Your task to perform on an android device: change alarm snooze length Image 0: 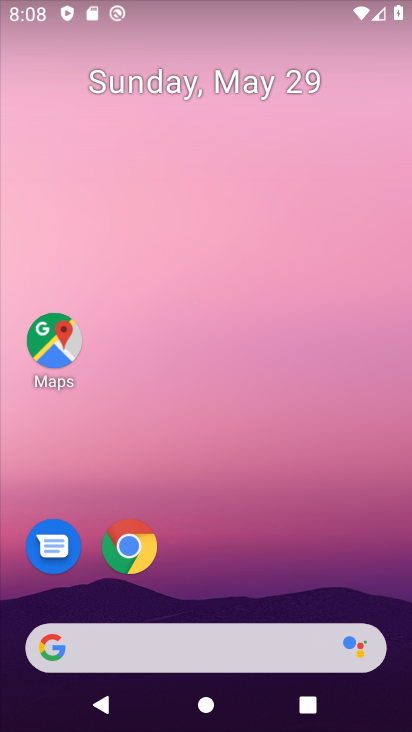
Step 0: drag from (164, 601) to (329, 122)
Your task to perform on an android device: change alarm snooze length Image 1: 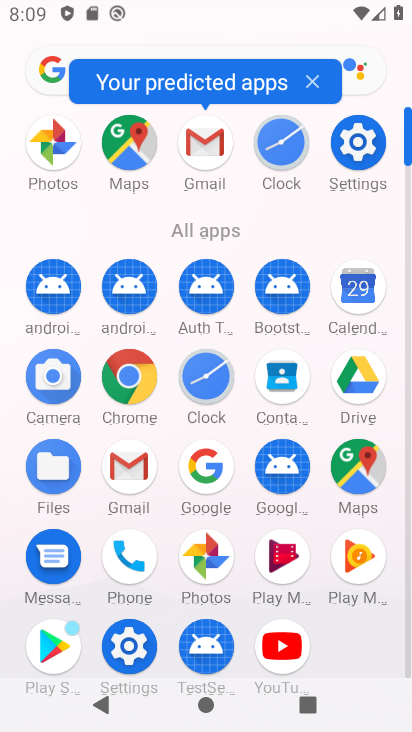
Step 1: click (214, 379)
Your task to perform on an android device: change alarm snooze length Image 2: 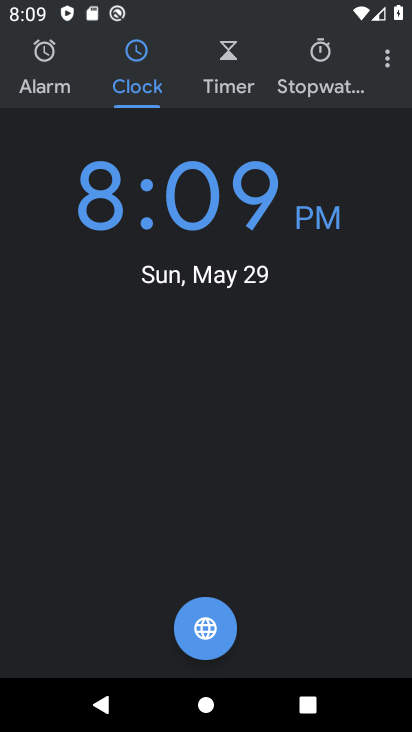
Step 2: click (386, 54)
Your task to perform on an android device: change alarm snooze length Image 3: 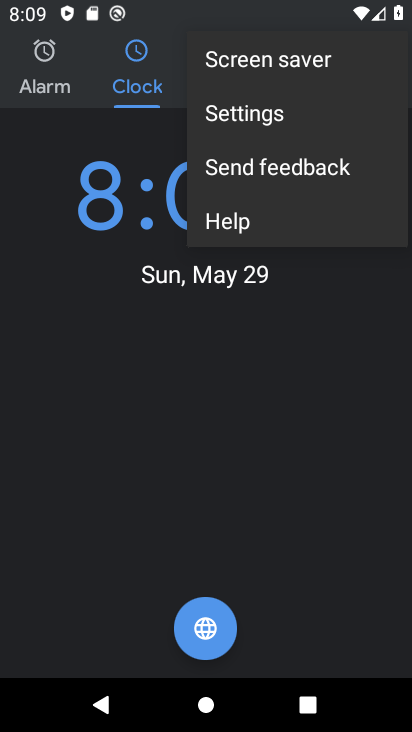
Step 3: click (274, 111)
Your task to perform on an android device: change alarm snooze length Image 4: 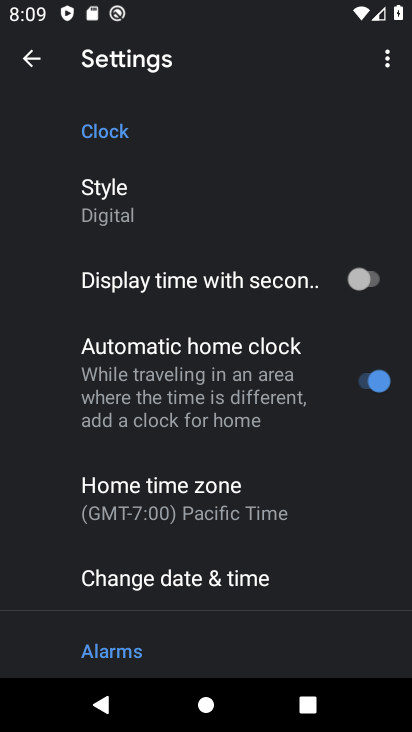
Step 4: drag from (250, 619) to (379, 68)
Your task to perform on an android device: change alarm snooze length Image 5: 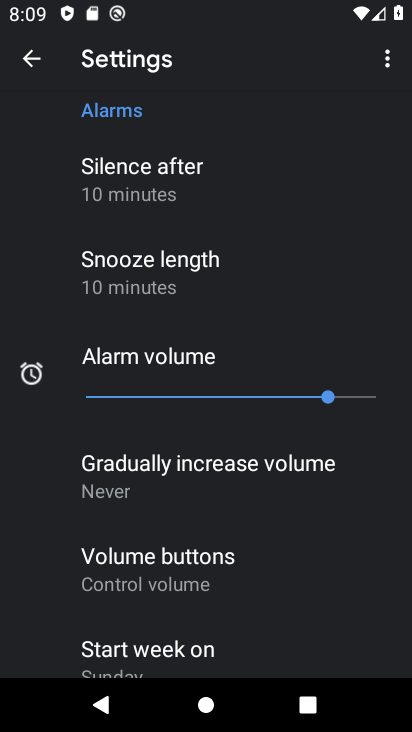
Step 5: click (153, 272)
Your task to perform on an android device: change alarm snooze length Image 6: 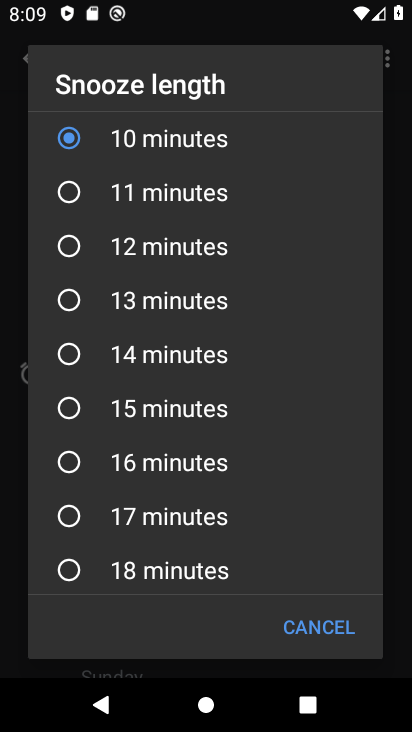
Step 6: click (65, 406)
Your task to perform on an android device: change alarm snooze length Image 7: 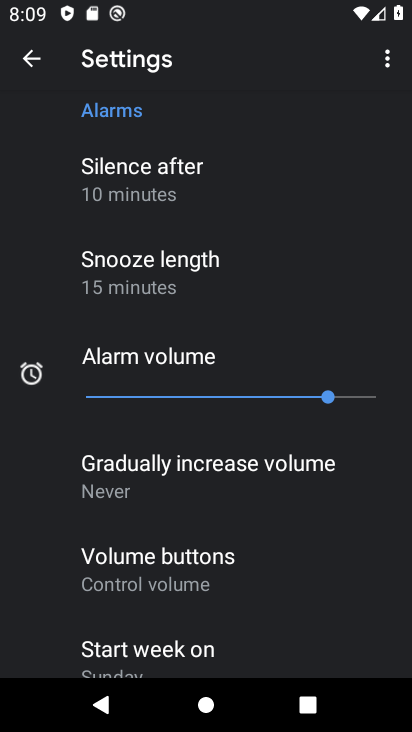
Step 7: task complete